Your task to perform on an android device: Open settings on Google Maps Image 0: 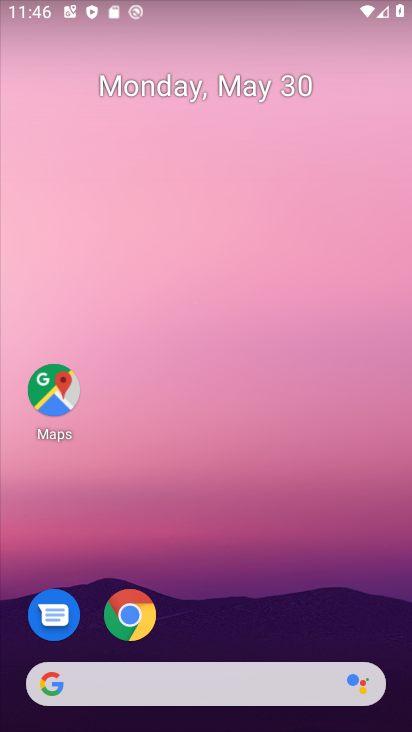
Step 0: drag from (357, 613) to (342, 205)
Your task to perform on an android device: Open settings on Google Maps Image 1: 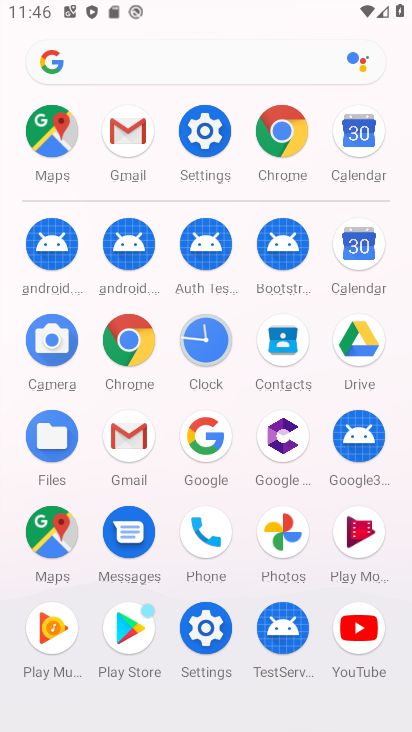
Step 1: click (128, 353)
Your task to perform on an android device: Open settings on Google Maps Image 2: 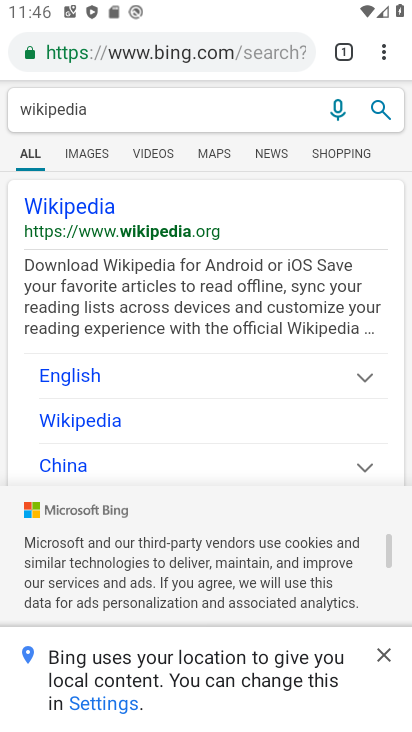
Step 2: click (381, 61)
Your task to perform on an android device: Open settings on Google Maps Image 3: 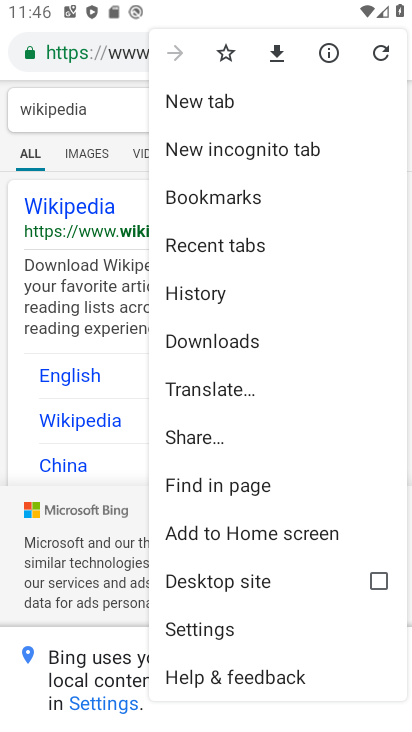
Step 3: drag from (340, 455) to (348, 326)
Your task to perform on an android device: Open settings on Google Maps Image 4: 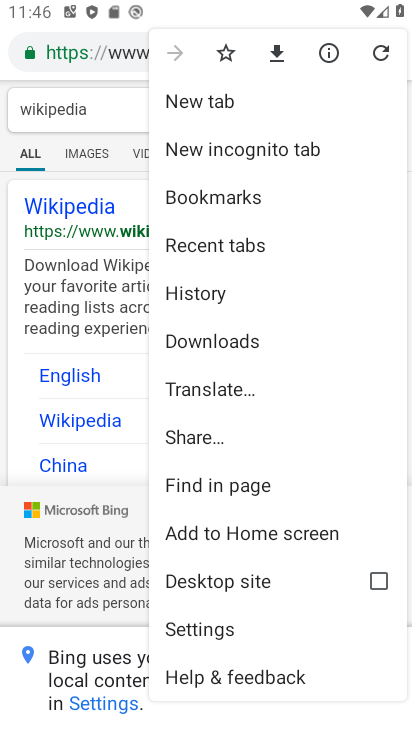
Step 4: click (268, 624)
Your task to perform on an android device: Open settings on Google Maps Image 5: 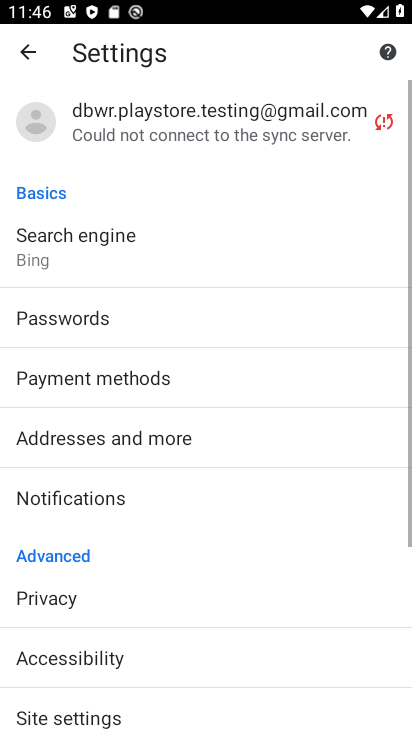
Step 5: task complete